Your task to perform on an android device: add a contact Image 0: 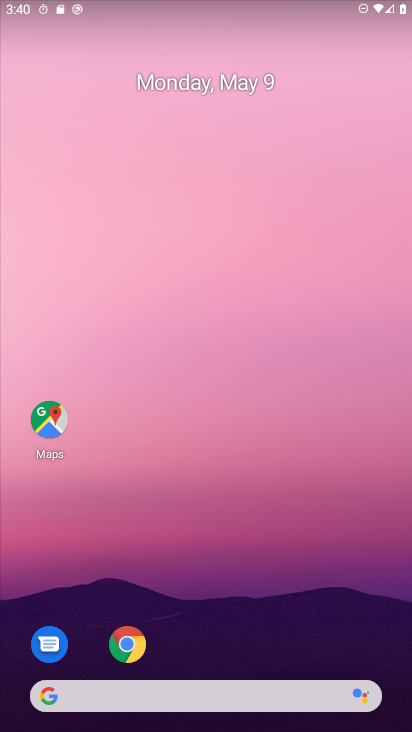
Step 0: drag from (255, 627) to (274, 147)
Your task to perform on an android device: add a contact Image 1: 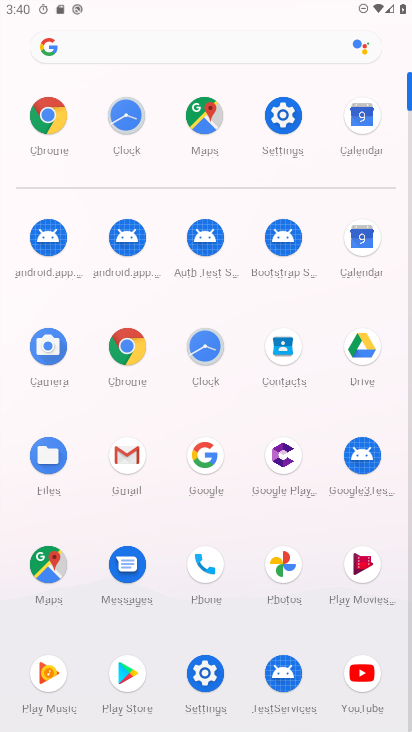
Step 1: drag from (249, 638) to (248, 287)
Your task to perform on an android device: add a contact Image 2: 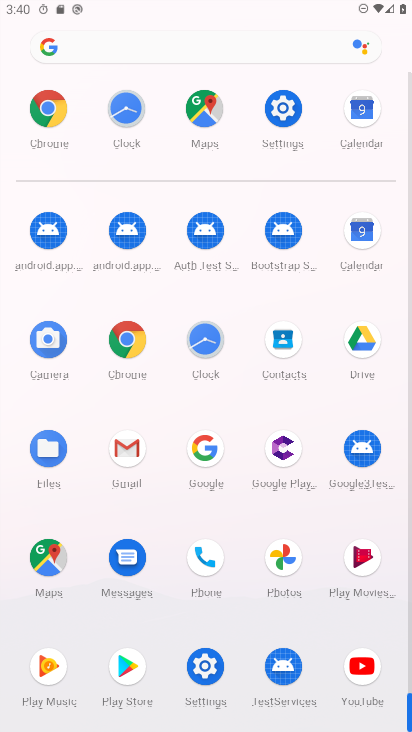
Step 2: drag from (215, 390) to (207, 605)
Your task to perform on an android device: add a contact Image 3: 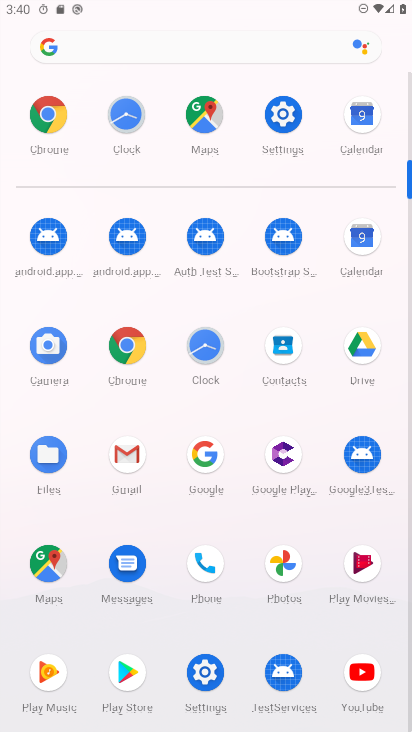
Step 3: drag from (316, 550) to (314, 351)
Your task to perform on an android device: add a contact Image 4: 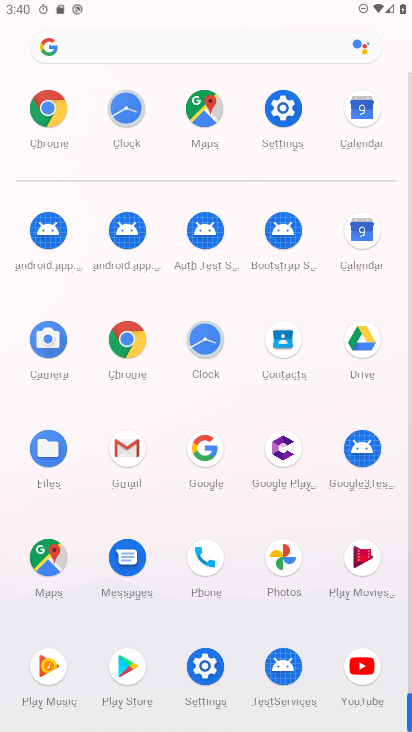
Step 4: click (296, 366)
Your task to perform on an android device: add a contact Image 5: 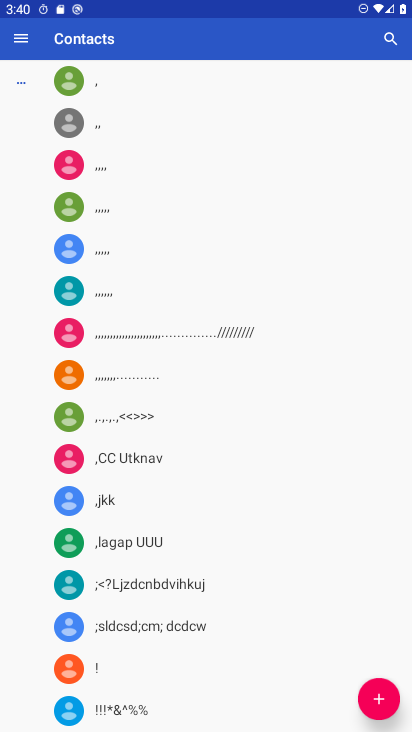
Step 5: click (381, 714)
Your task to perform on an android device: add a contact Image 6: 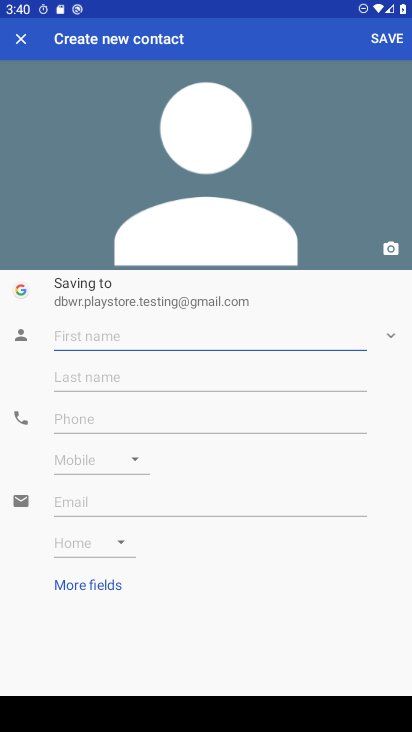
Step 6: click (119, 335)
Your task to perform on an android device: add a contact Image 7: 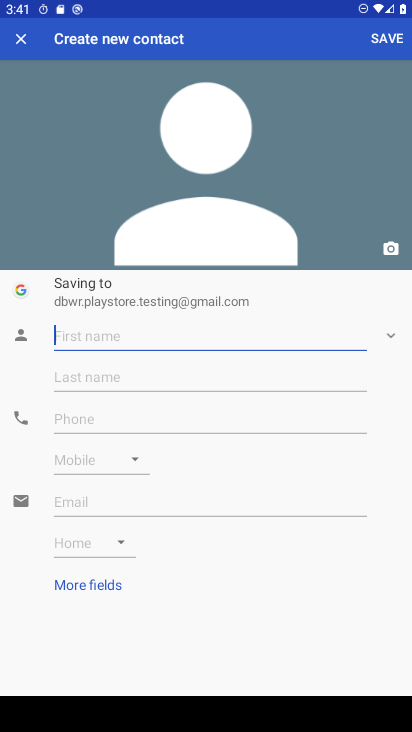
Step 7: type "Sarvesh"
Your task to perform on an android device: add a contact Image 8: 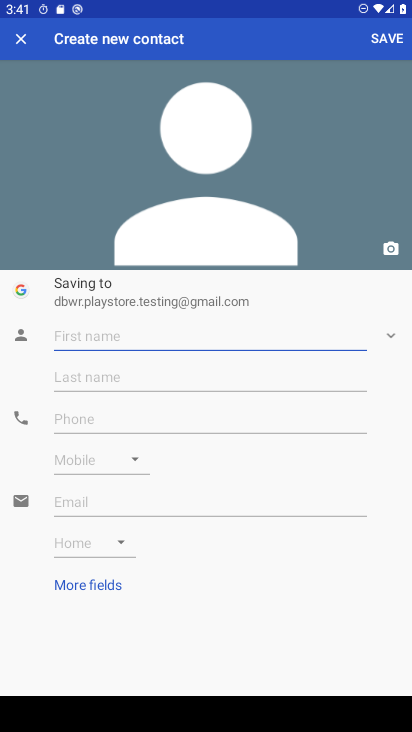
Step 8: click (239, 370)
Your task to perform on an android device: add a contact Image 9: 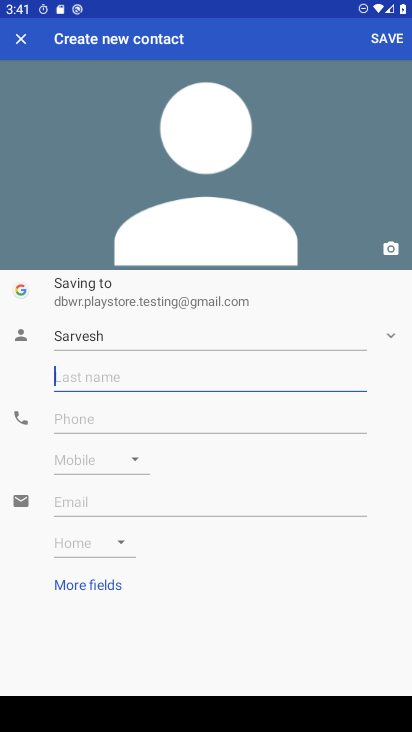
Step 9: type "Purohit"
Your task to perform on an android device: add a contact Image 10: 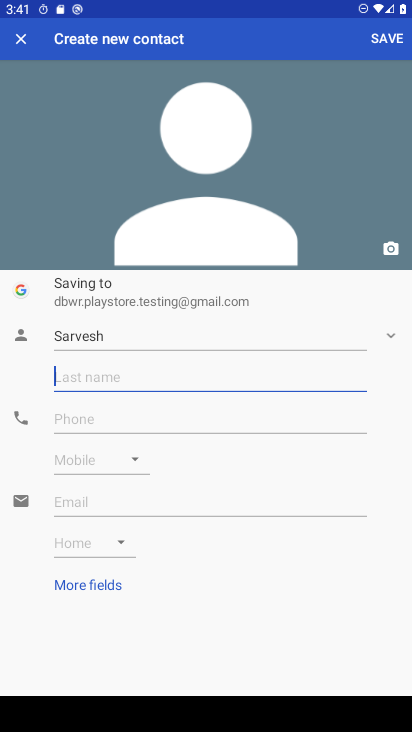
Step 10: click (108, 408)
Your task to perform on an android device: add a contact Image 11: 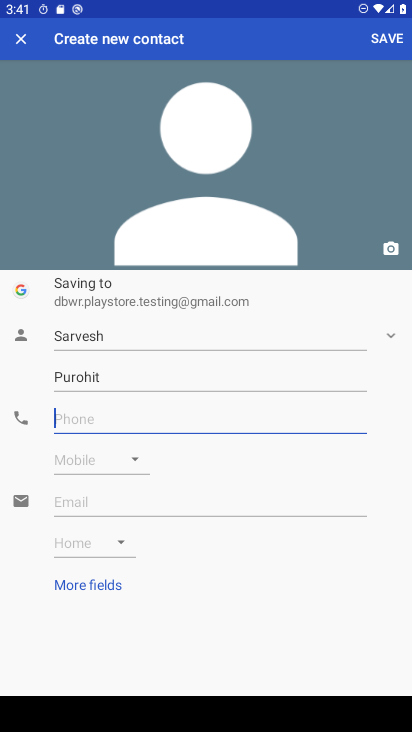
Step 11: type "8900988909"
Your task to perform on an android device: add a contact Image 12: 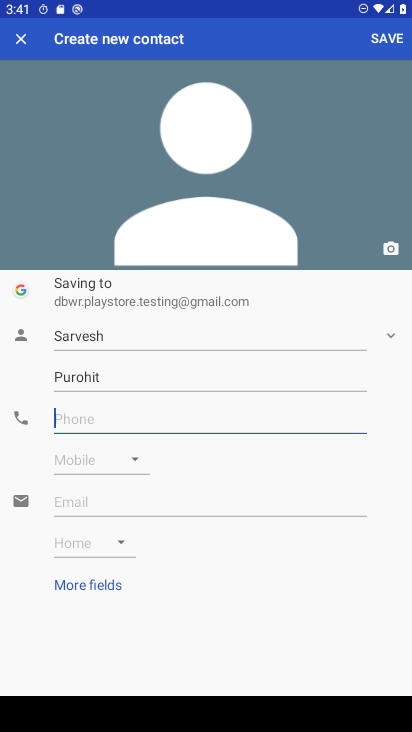
Step 12: click (183, 416)
Your task to perform on an android device: add a contact Image 13: 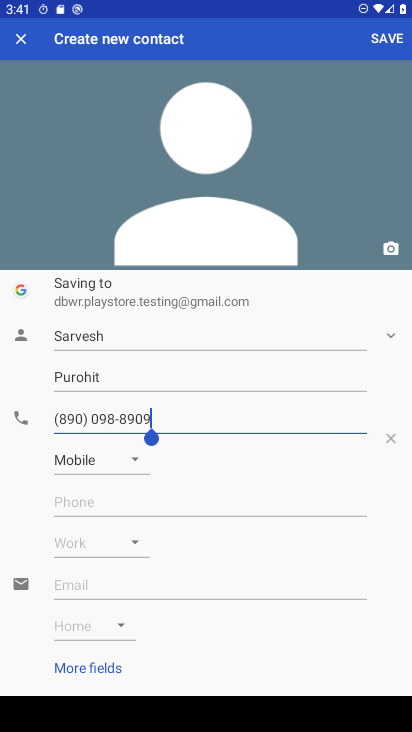
Step 13: task complete